Your task to perform on an android device: Go to Wikipedia Image 0: 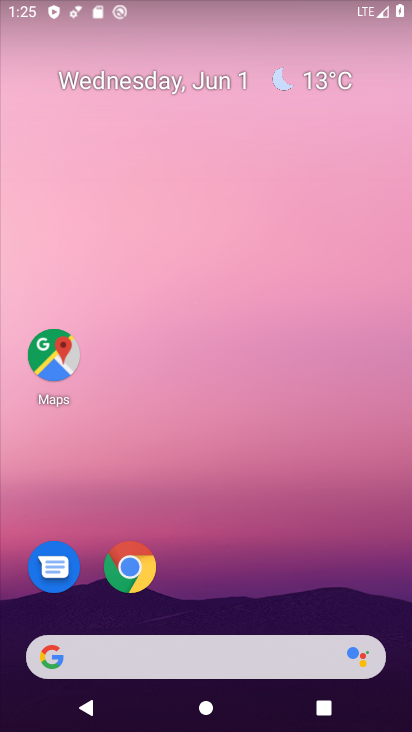
Step 0: click (391, 476)
Your task to perform on an android device: Go to Wikipedia Image 1: 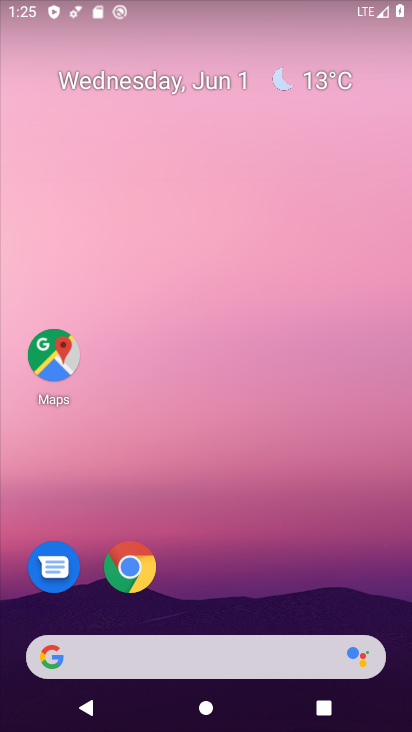
Step 1: click (121, 586)
Your task to perform on an android device: Go to Wikipedia Image 2: 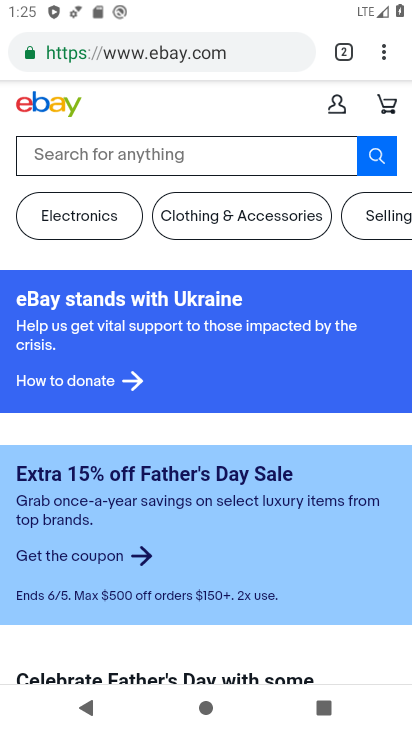
Step 2: click (343, 63)
Your task to perform on an android device: Go to Wikipedia Image 3: 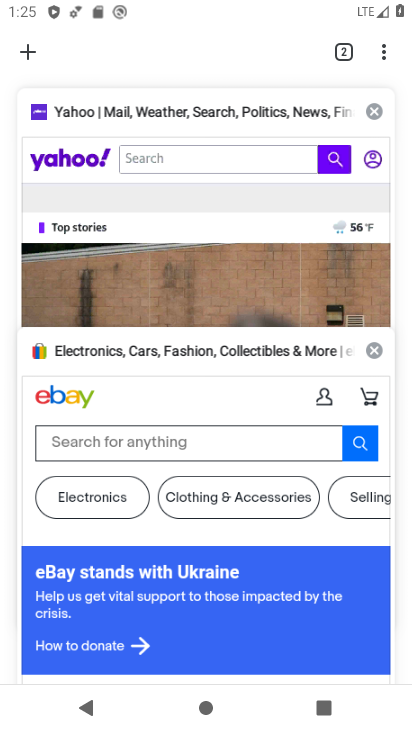
Step 3: click (373, 115)
Your task to perform on an android device: Go to Wikipedia Image 4: 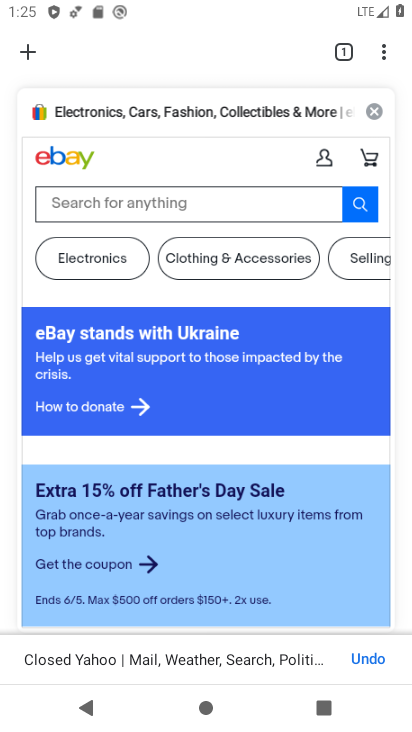
Step 4: click (372, 116)
Your task to perform on an android device: Go to Wikipedia Image 5: 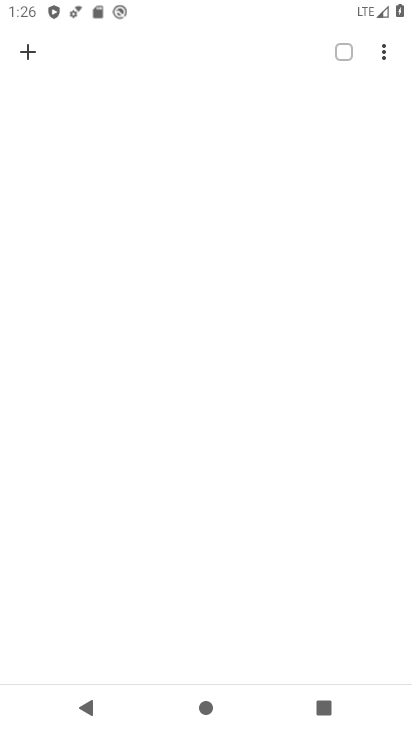
Step 5: click (32, 49)
Your task to perform on an android device: Go to Wikipedia Image 6: 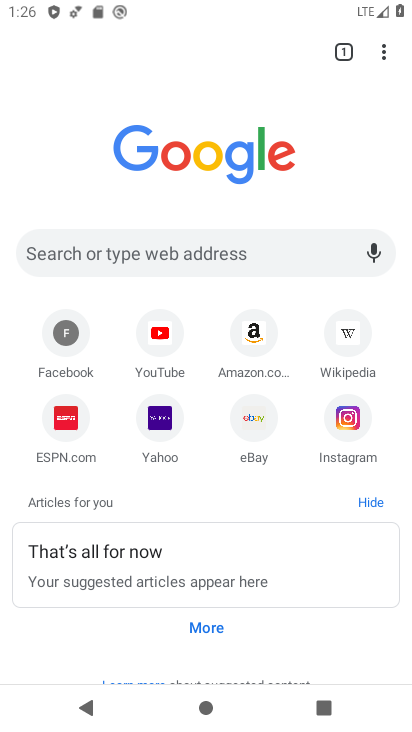
Step 6: click (338, 336)
Your task to perform on an android device: Go to Wikipedia Image 7: 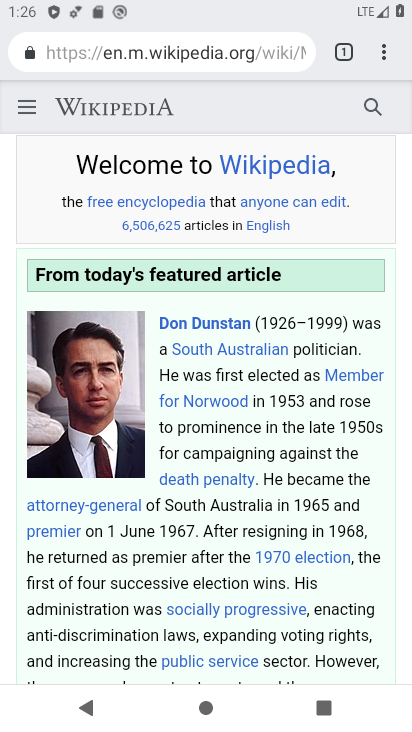
Step 7: task complete